Your task to perform on an android device: Play the last video I watched on Youtube Image 0: 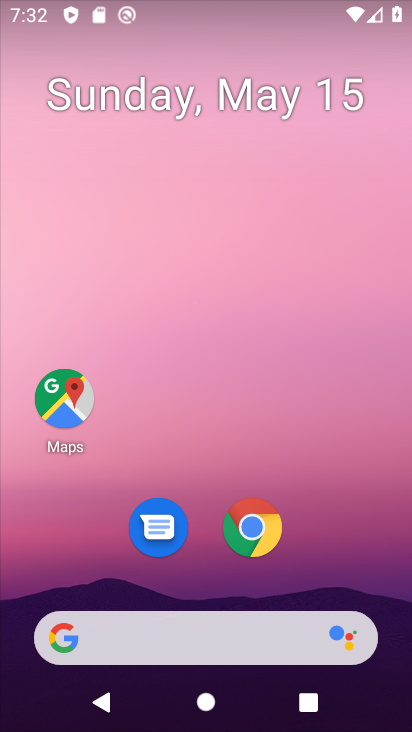
Step 0: drag from (202, 580) to (221, 138)
Your task to perform on an android device: Play the last video I watched on Youtube Image 1: 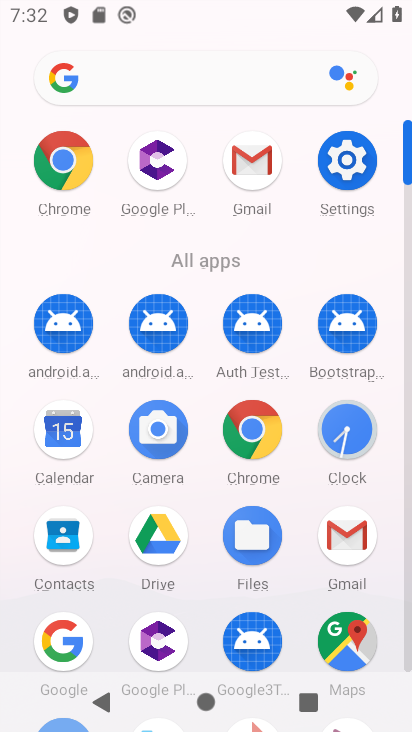
Step 1: drag from (184, 528) to (189, 160)
Your task to perform on an android device: Play the last video I watched on Youtube Image 2: 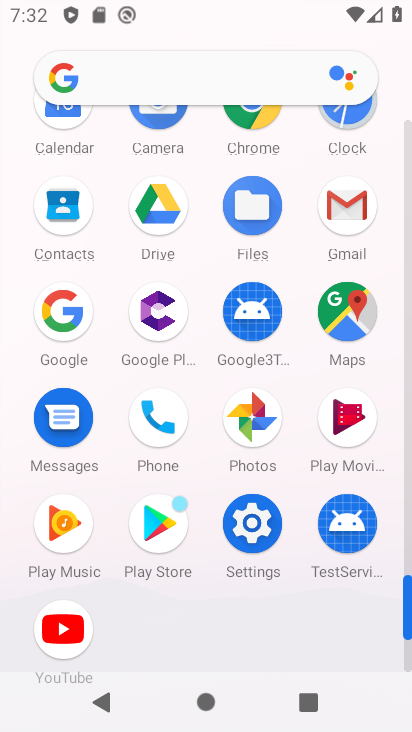
Step 2: click (62, 638)
Your task to perform on an android device: Play the last video I watched on Youtube Image 3: 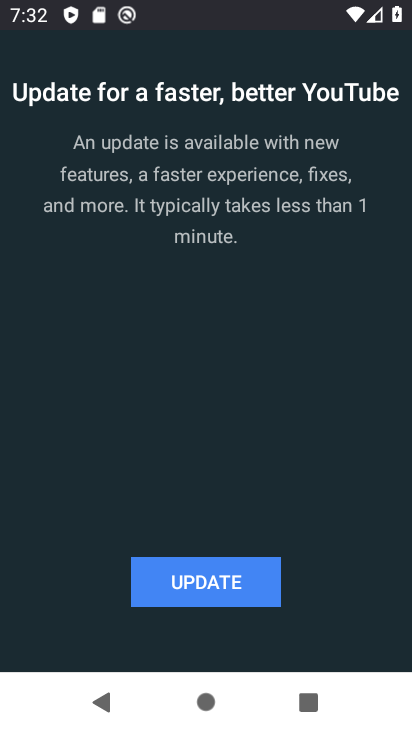
Step 3: click (227, 595)
Your task to perform on an android device: Play the last video I watched on Youtube Image 4: 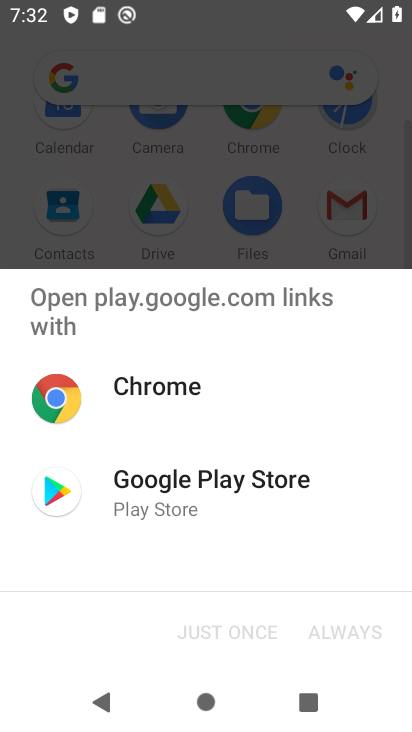
Step 4: click (188, 495)
Your task to perform on an android device: Play the last video I watched on Youtube Image 5: 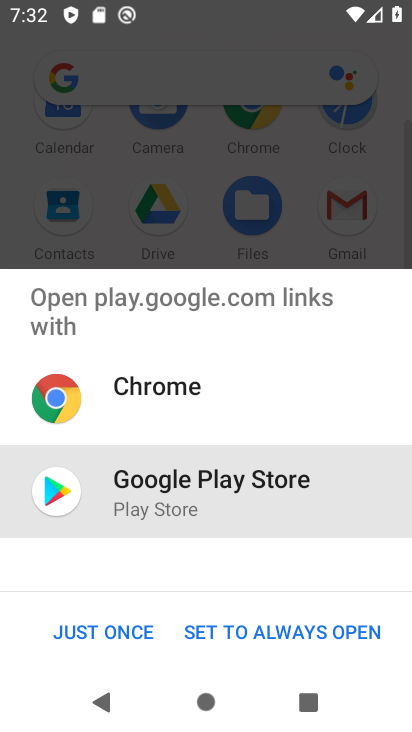
Step 5: click (214, 634)
Your task to perform on an android device: Play the last video I watched on Youtube Image 6: 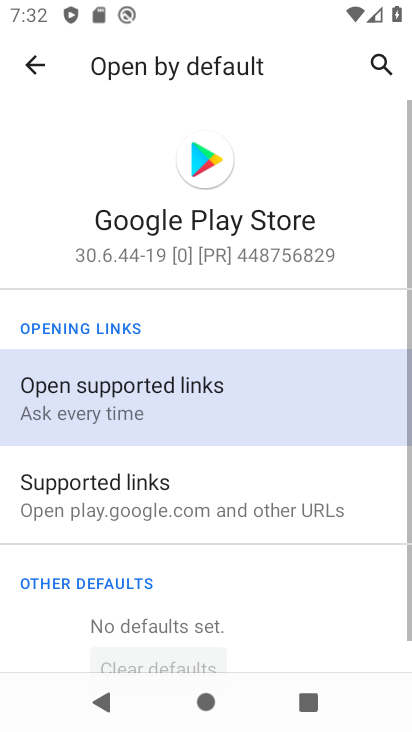
Step 6: click (104, 698)
Your task to perform on an android device: Play the last video I watched on Youtube Image 7: 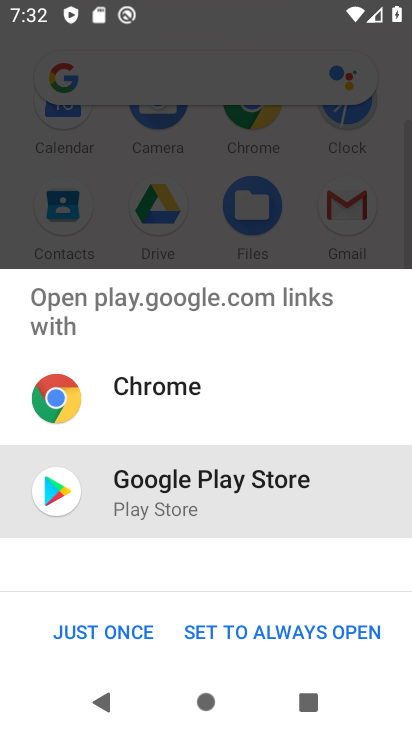
Step 7: click (103, 630)
Your task to perform on an android device: Play the last video I watched on Youtube Image 8: 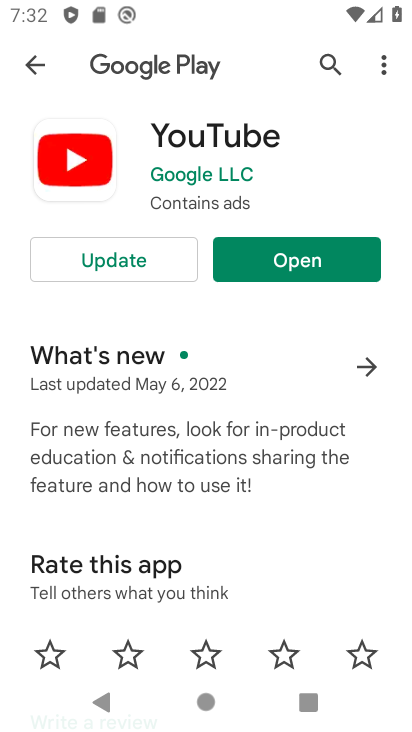
Step 8: click (129, 269)
Your task to perform on an android device: Play the last video I watched on Youtube Image 9: 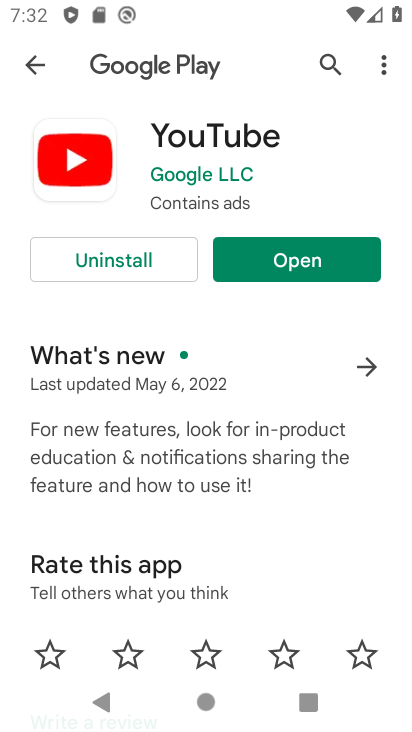
Step 9: click (314, 251)
Your task to perform on an android device: Play the last video I watched on Youtube Image 10: 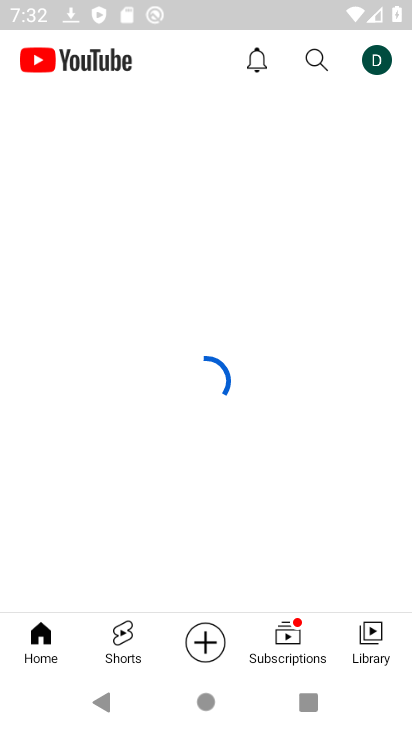
Step 10: click (353, 637)
Your task to perform on an android device: Play the last video I watched on Youtube Image 11: 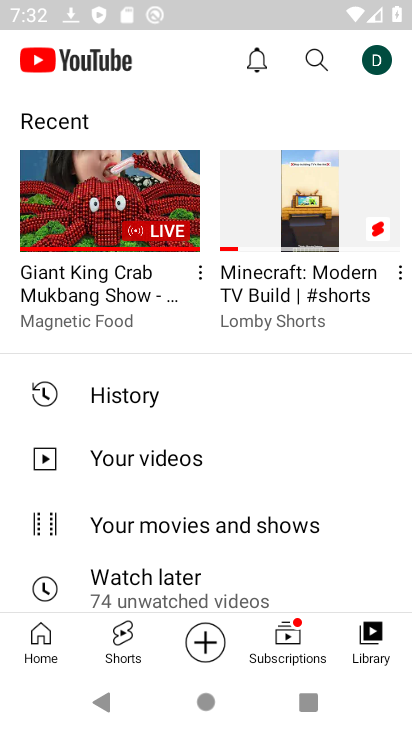
Step 11: click (120, 202)
Your task to perform on an android device: Play the last video I watched on Youtube Image 12: 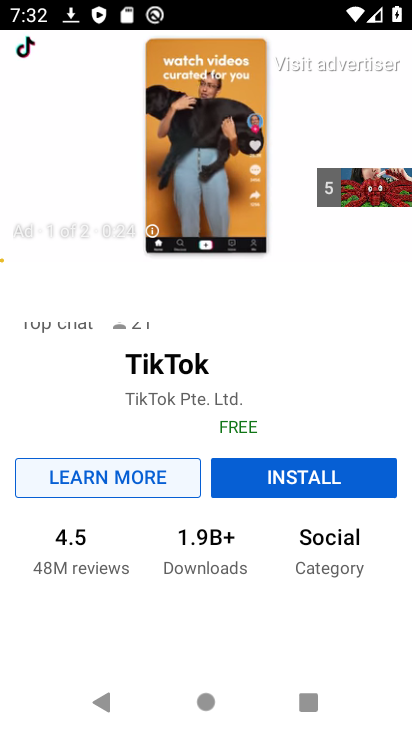
Step 12: task complete